Your task to perform on an android device: empty trash in the gmail app Image 0: 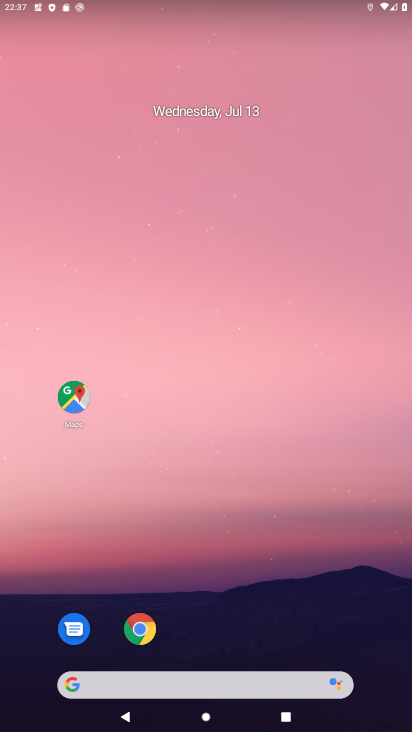
Step 0: press home button
Your task to perform on an android device: empty trash in the gmail app Image 1: 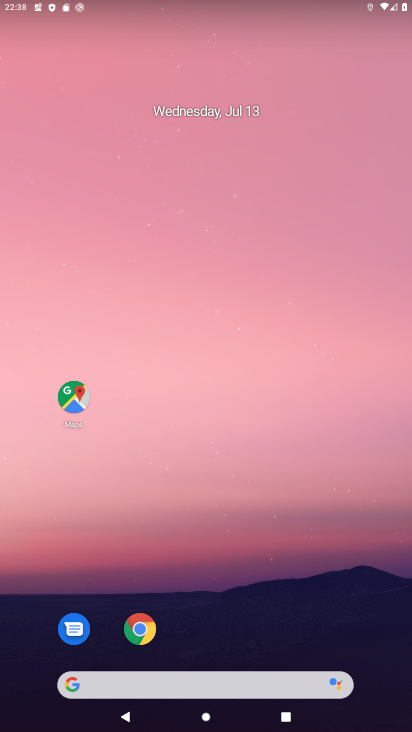
Step 1: drag from (220, 651) to (234, 17)
Your task to perform on an android device: empty trash in the gmail app Image 2: 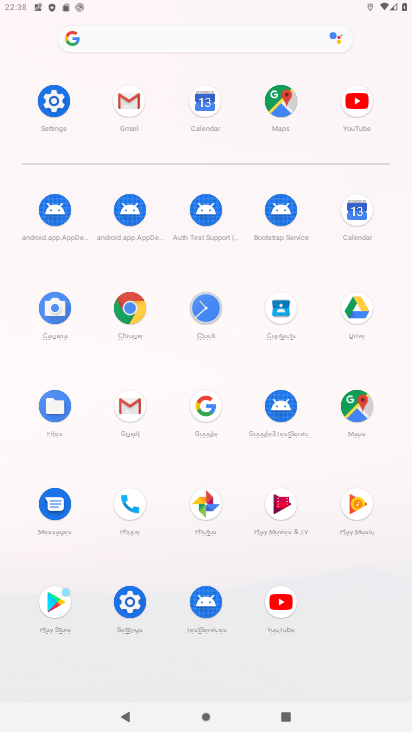
Step 2: click (128, 402)
Your task to perform on an android device: empty trash in the gmail app Image 3: 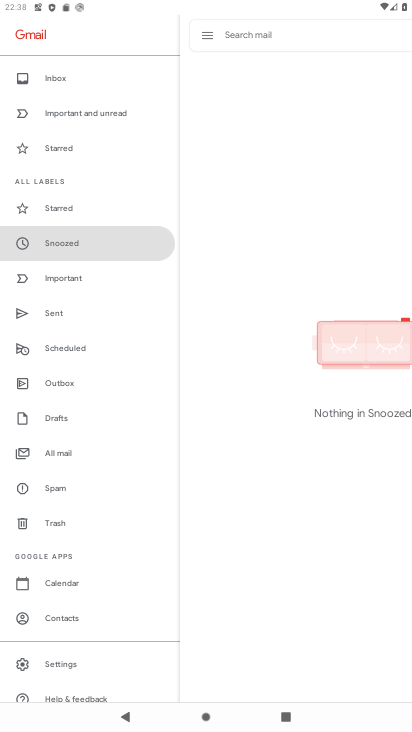
Step 3: click (60, 520)
Your task to perform on an android device: empty trash in the gmail app Image 4: 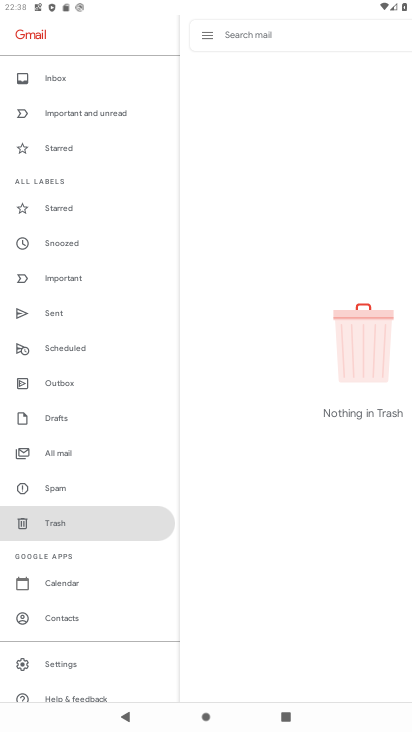
Step 4: task complete